Your task to perform on an android device: turn on improve location accuracy Image 0: 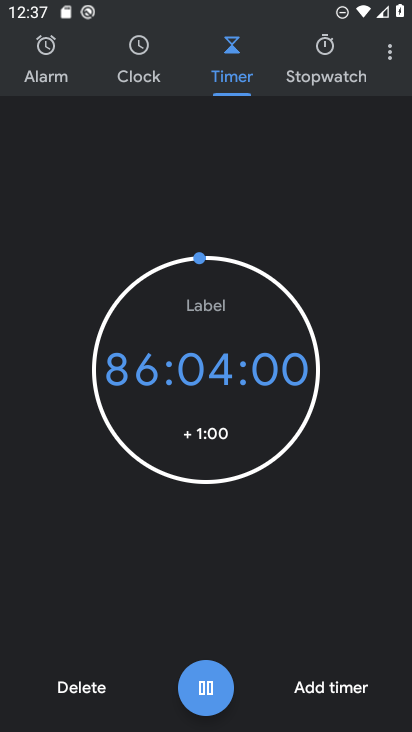
Step 0: press home button
Your task to perform on an android device: turn on improve location accuracy Image 1: 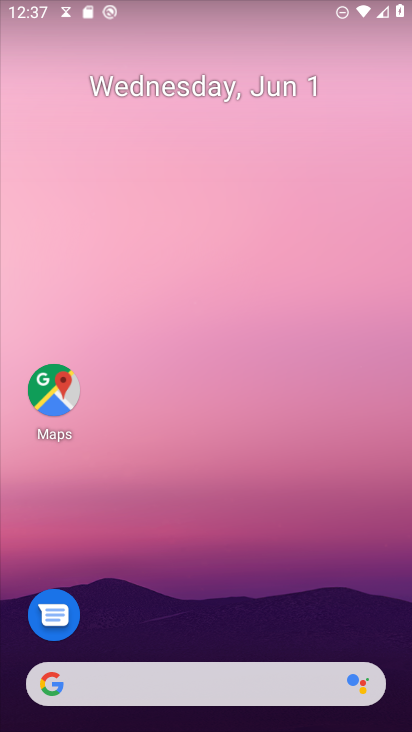
Step 1: drag from (205, 698) to (190, 320)
Your task to perform on an android device: turn on improve location accuracy Image 2: 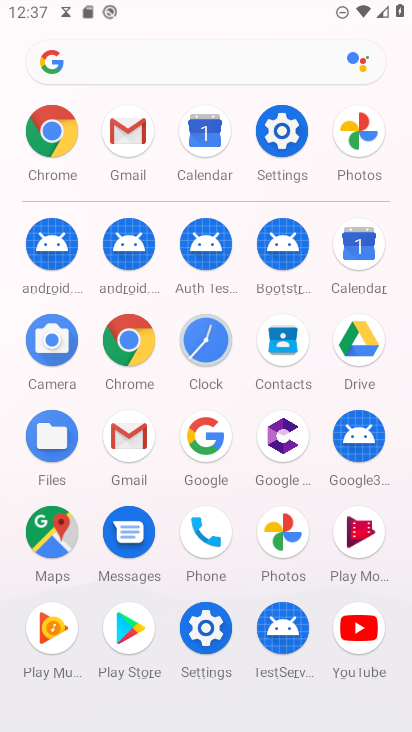
Step 2: drag from (281, 596) to (285, 275)
Your task to perform on an android device: turn on improve location accuracy Image 3: 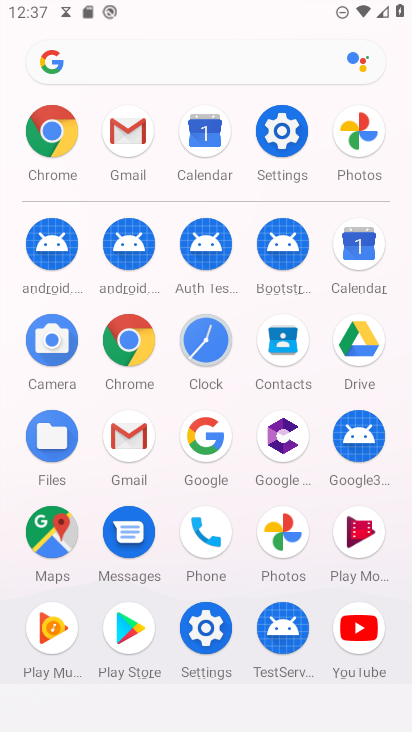
Step 3: click (205, 635)
Your task to perform on an android device: turn on improve location accuracy Image 4: 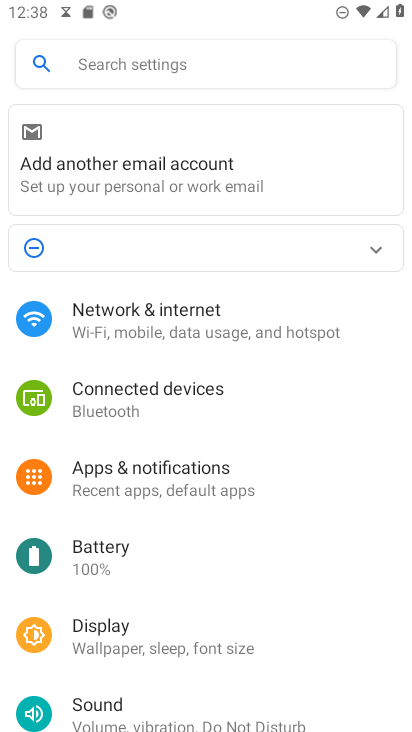
Step 4: drag from (243, 669) to (266, 203)
Your task to perform on an android device: turn on improve location accuracy Image 5: 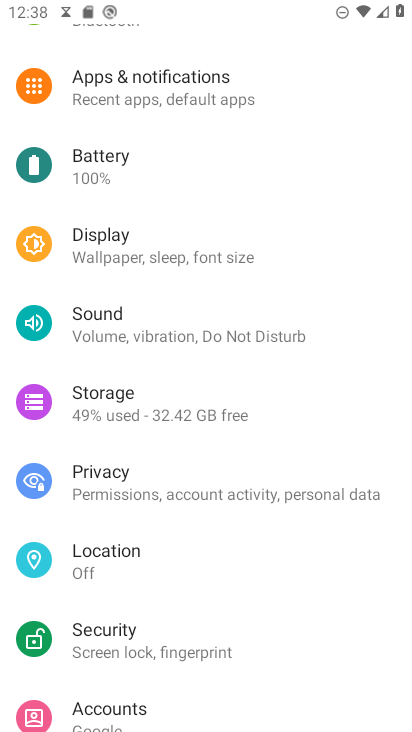
Step 5: click (142, 565)
Your task to perform on an android device: turn on improve location accuracy Image 6: 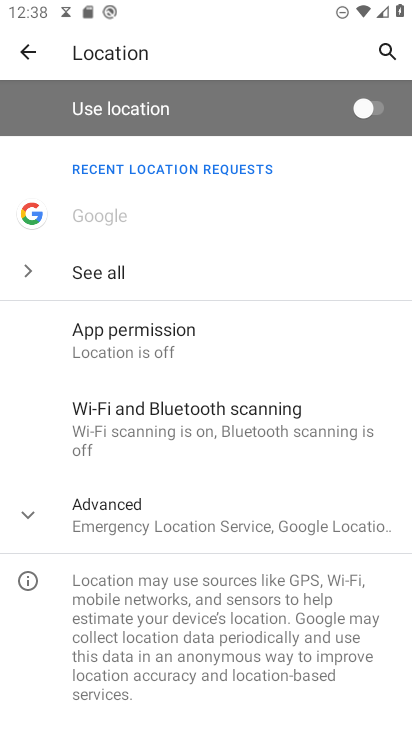
Step 6: click (223, 512)
Your task to perform on an android device: turn on improve location accuracy Image 7: 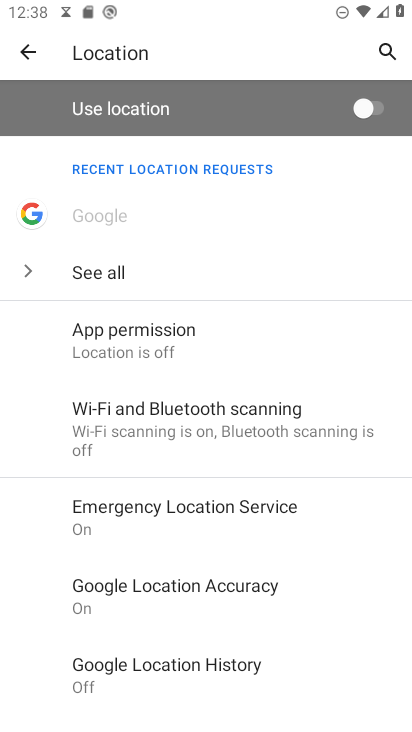
Step 7: task complete